Your task to perform on an android device: Open Yahoo.com Image 0: 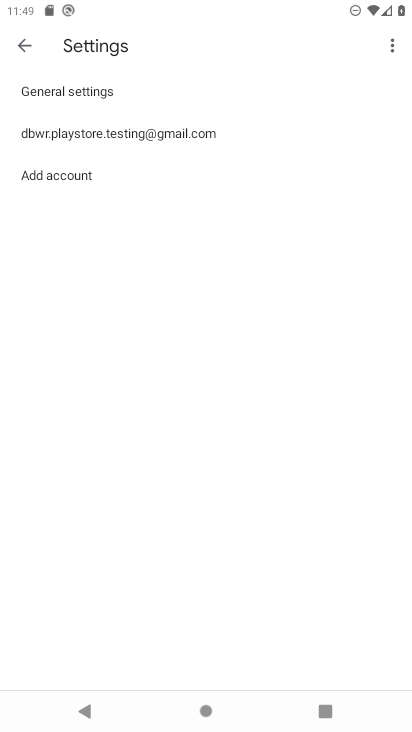
Step 0: press home button
Your task to perform on an android device: Open Yahoo.com Image 1: 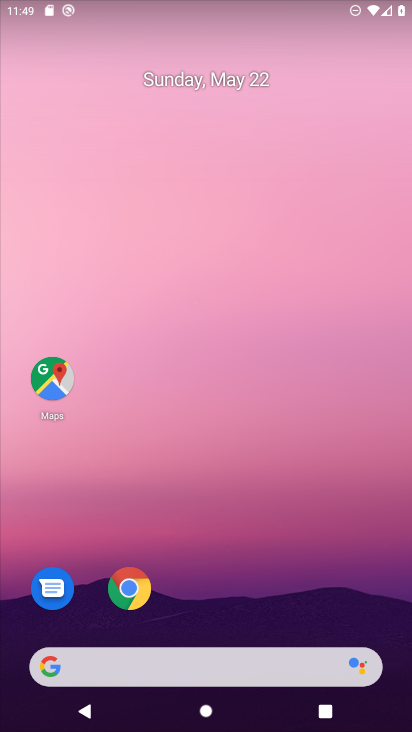
Step 1: drag from (280, 689) to (203, 161)
Your task to perform on an android device: Open Yahoo.com Image 2: 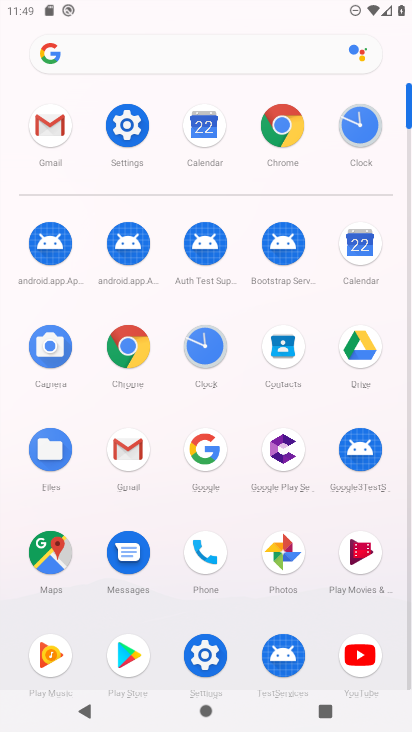
Step 2: click (287, 141)
Your task to perform on an android device: Open Yahoo.com Image 3: 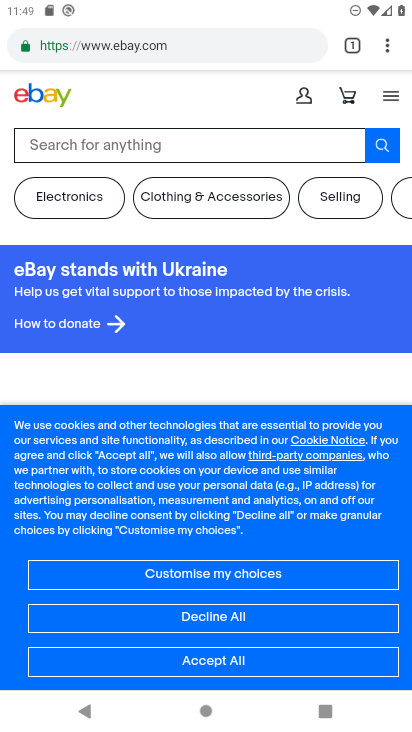
Step 3: click (107, 46)
Your task to perform on an android device: Open Yahoo.com Image 4: 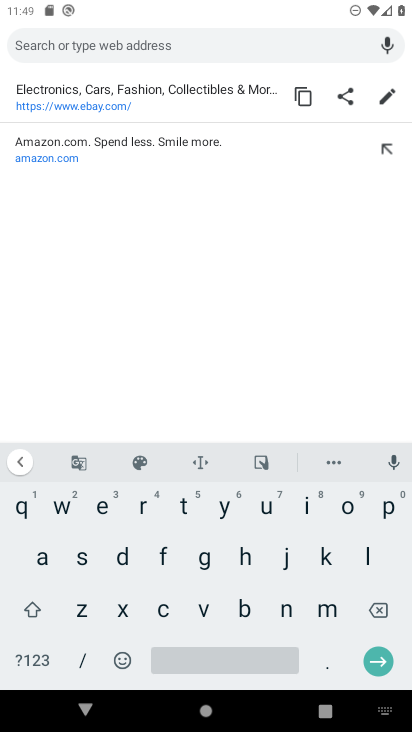
Step 4: click (231, 508)
Your task to perform on an android device: Open Yahoo.com Image 5: 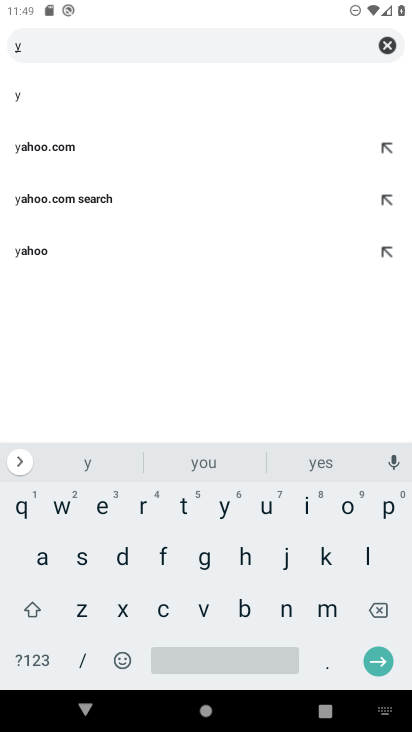
Step 5: click (35, 558)
Your task to perform on an android device: Open Yahoo.com Image 6: 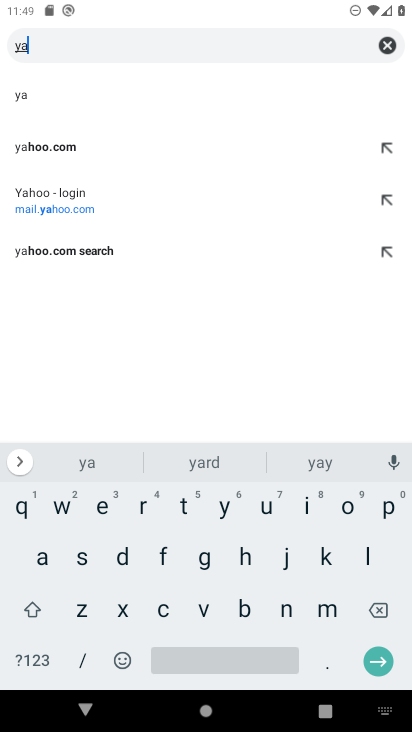
Step 6: click (77, 150)
Your task to perform on an android device: Open Yahoo.com Image 7: 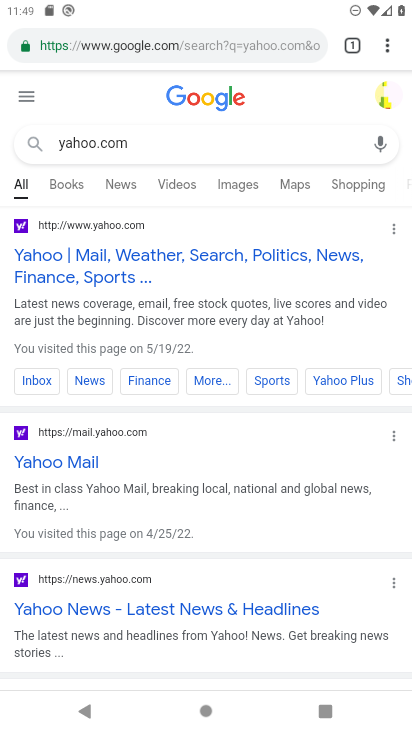
Step 7: click (61, 253)
Your task to perform on an android device: Open Yahoo.com Image 8: 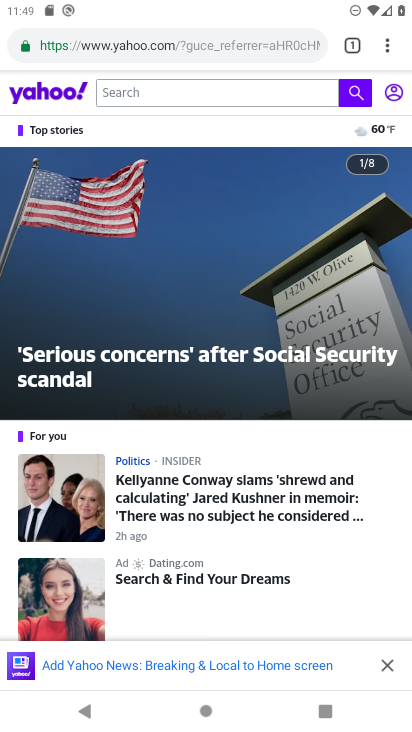
Step 8: task complete